Your task to perform on an android device: add a contact in the contacts app Image 0: 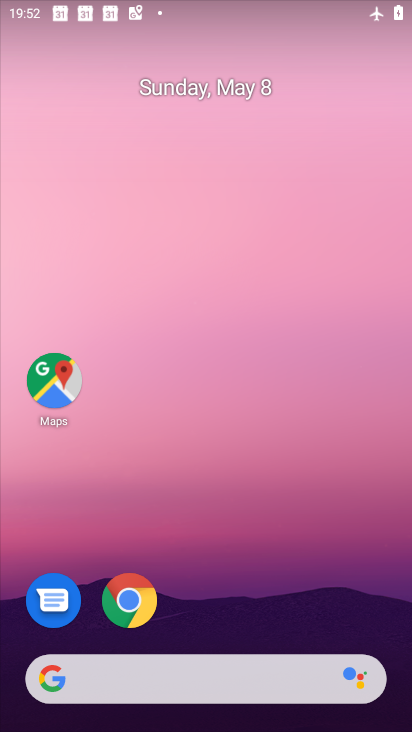
Step 0: drag from (260, 707) to (142, 219)
Your task to perform on an android device: add a contact in the contacts app Image 1: 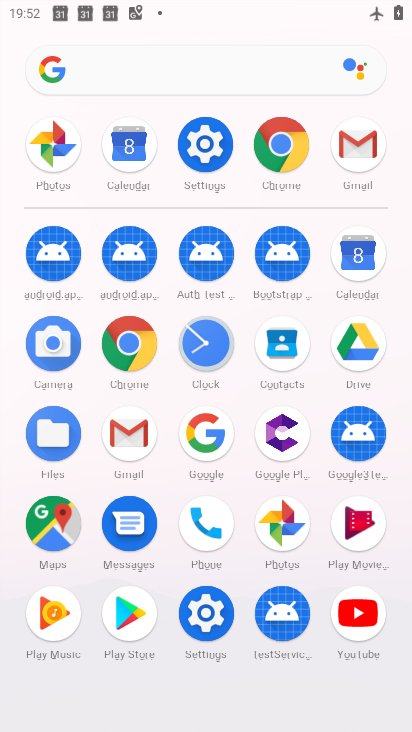
Step 1: click (215, 523)
Your task to perform on an android device: add a contact in the contacts app Image 2: 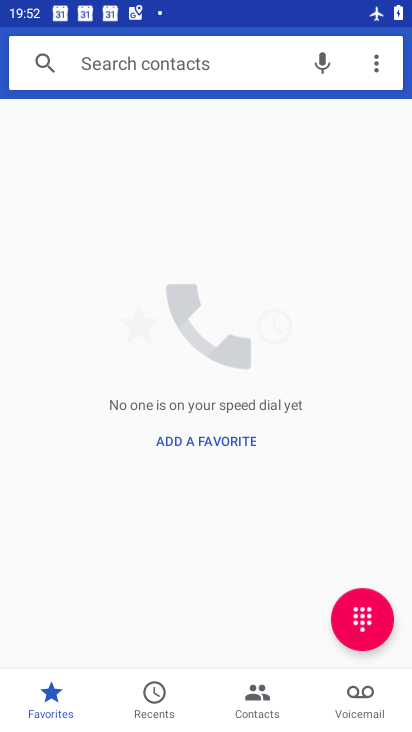
Step 2: click (263, 693)
Your task to perform on an android device: add a contact in the contacts app Image 3: 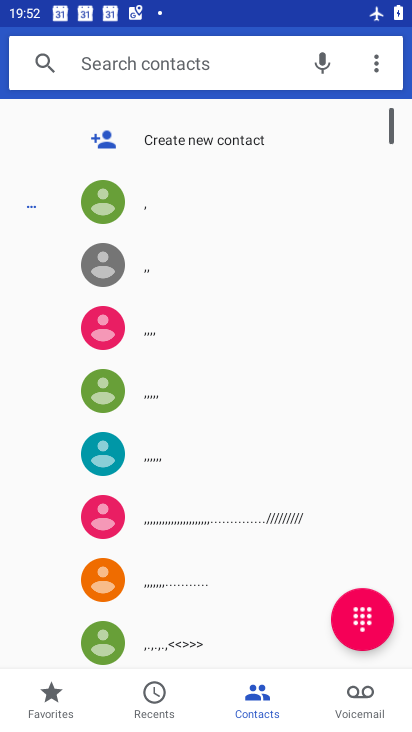
Step 3: click (177, 134)
Your task to perform on an android device: add a contact in the contacts app Image 4: 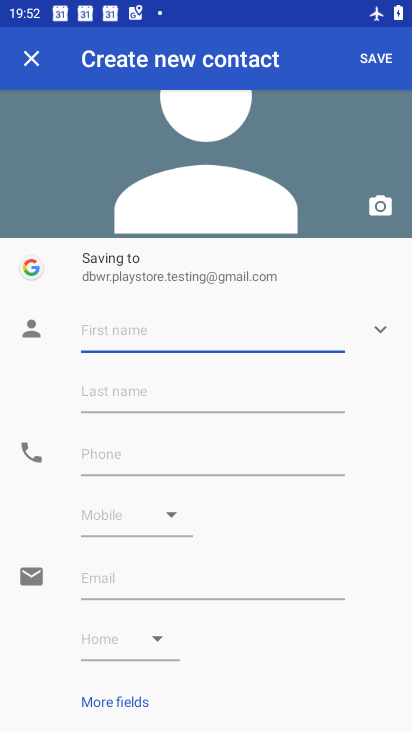
Step 4: click (143, 321)
Your task to perform on an android device: add a contact in the contacts app Image 5: 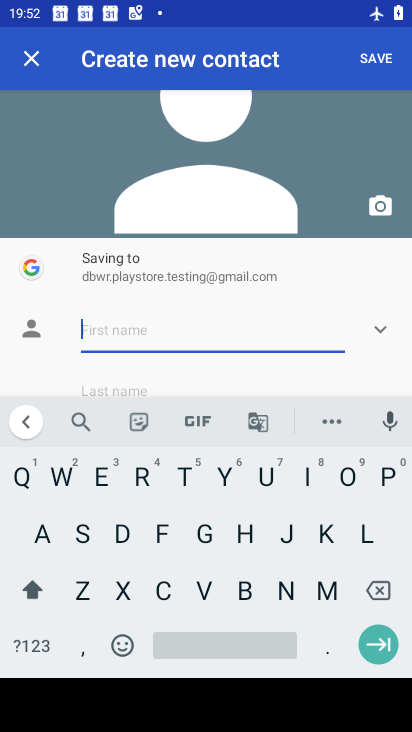
Step 5: click (104, 481)
Your task to perform on an android device: add a contact in the contacts app Image 6: 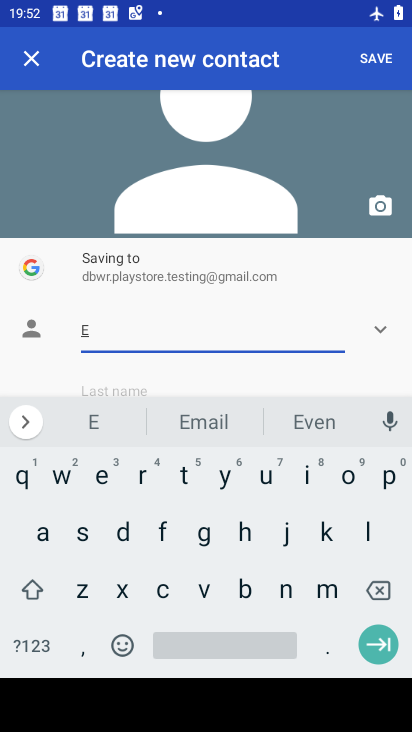
Step 6: click (141, 475)
Your task to perform on an android device: add a contact in the contacts app Image 7: 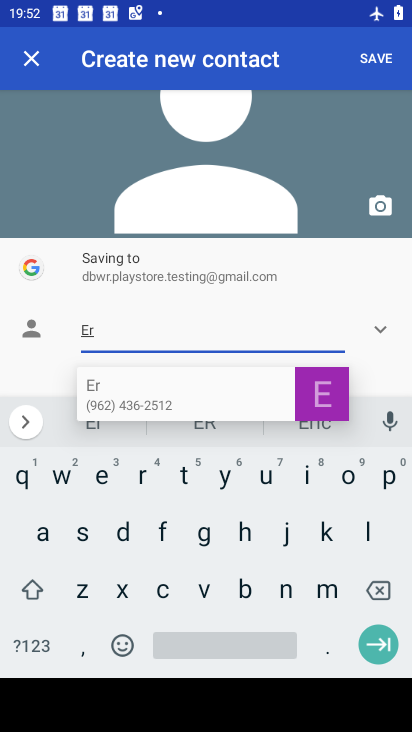
Step 7: click (385, 477)
Your task to perform on an android device: add a contact in the contacts app Image 8: 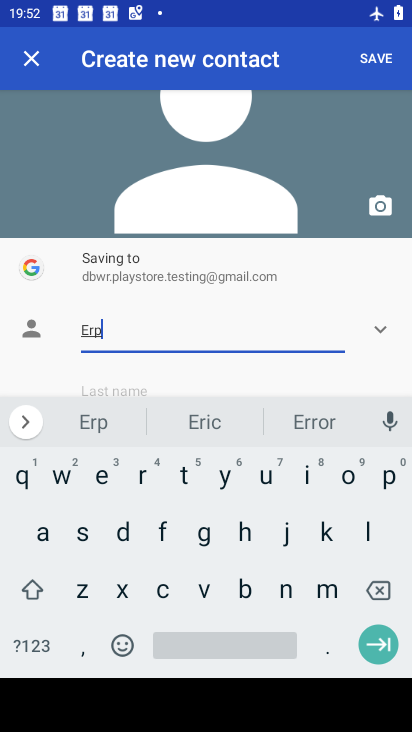
Step 8: drag from (279, 376) to (285, 178)
Your task to perform on an android device: add a contact in the contacts app Image 9: 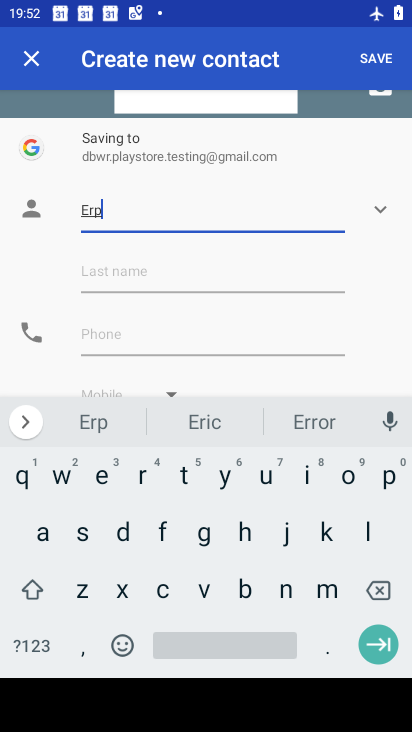
Step 9: click (111, 323)
Your task to perform on an android device: add a contact in the contacts app Image 10: 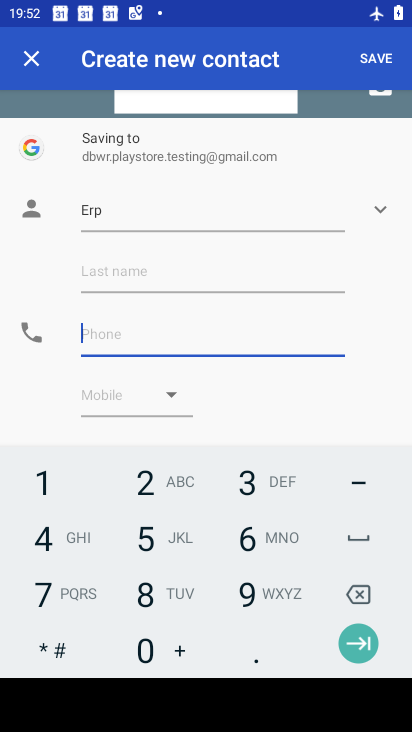
Step 10: click (140, 467)
Your task to perform on an android device: add a contact in the contacts app Image 11: 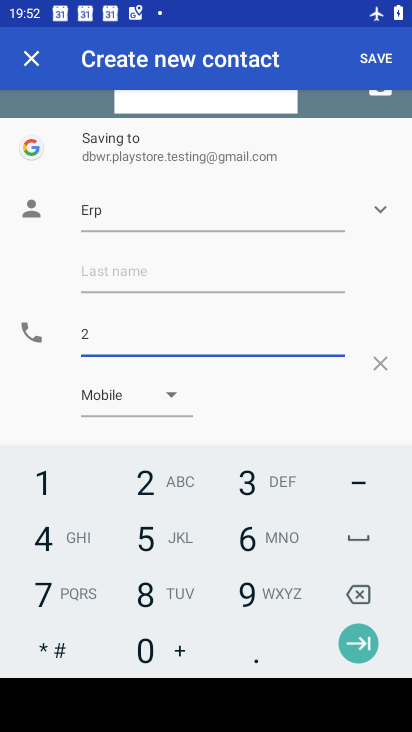
Step 11: click (46, 532)
Your task to perform on an android device: add a contact in the contacts app Image 12: 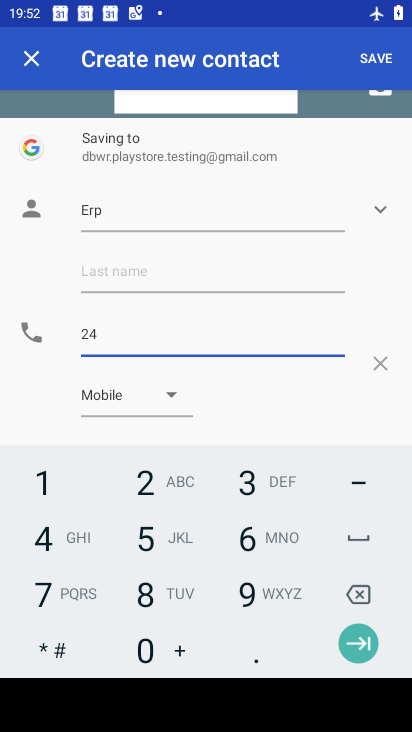
Step 12: click (144, 538)
Your task to perform on an android device: add a contact in the contacts app Image 13: 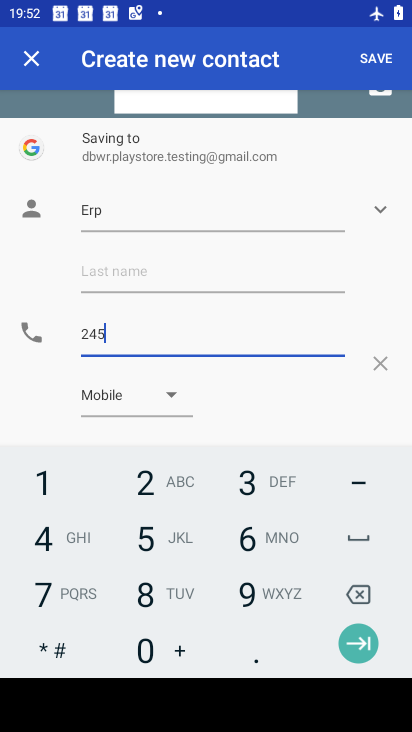
Step 13: click (148, 613)
Your task to perform on an android device: add a contact in the contacts app Image 14: 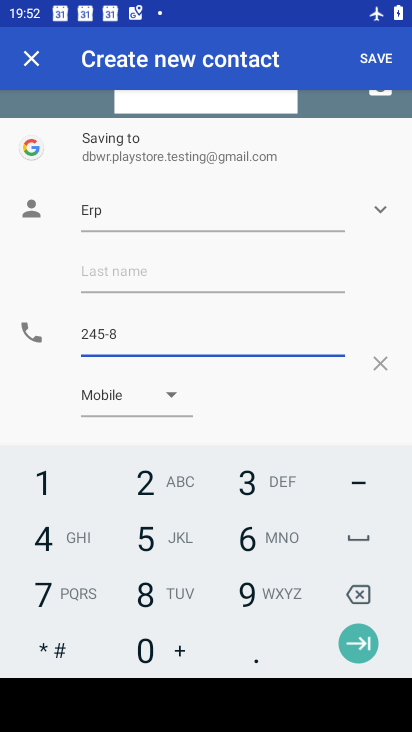
Step 14: click (163, 639)
Your task to perform on an android device: add a contact in the contacts app Image 15: 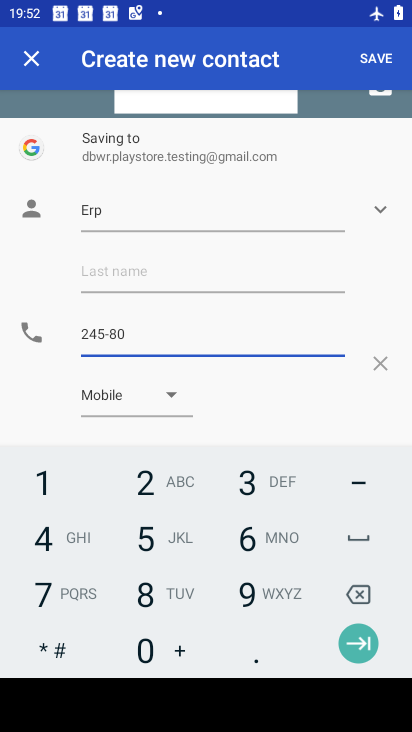
Step 15: click (239, 608)
Your task to perform on an android device: add a contact in the contacts app Image 16: 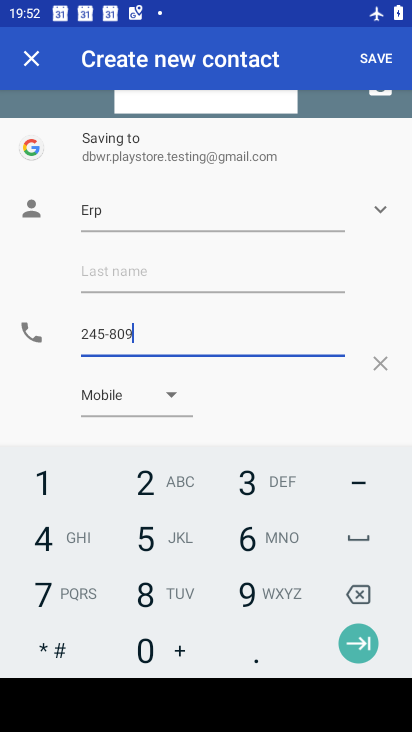
Step 16: click (370, 55)
Your task to perform on an android device: add a contact in the contacts app Image 17: 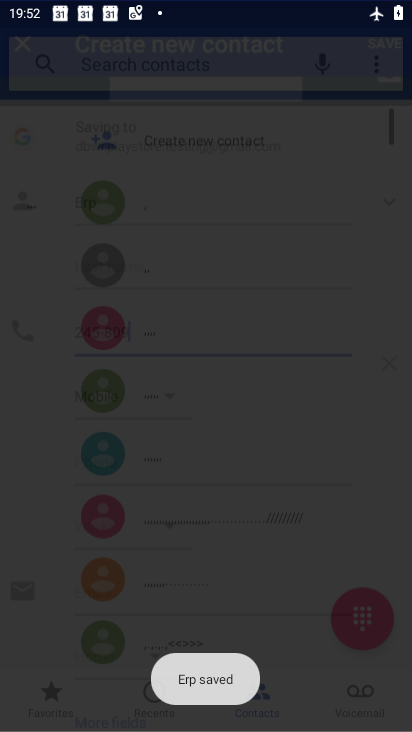
Step 17: task complete